Your task to perform on an android device: Search for Mexican restaurants on Maps Image 0: 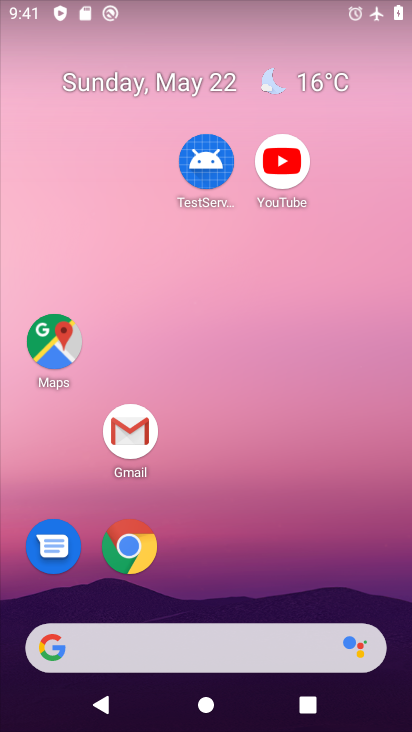
Step 0: drag from (269, 662) to (172, 68)
Your task to perform on an android device: Search for Mexican restaurants on Maps Image 1: 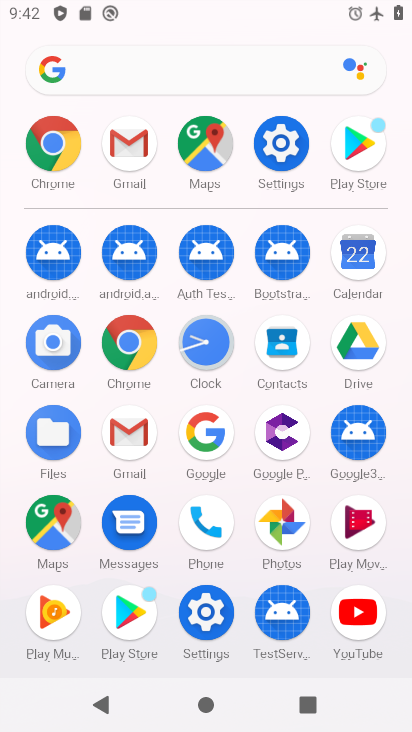
Step 1: click (49, 520)
Your task to perform on an android device: Search for Mexican restaurants on Maps Image 2: 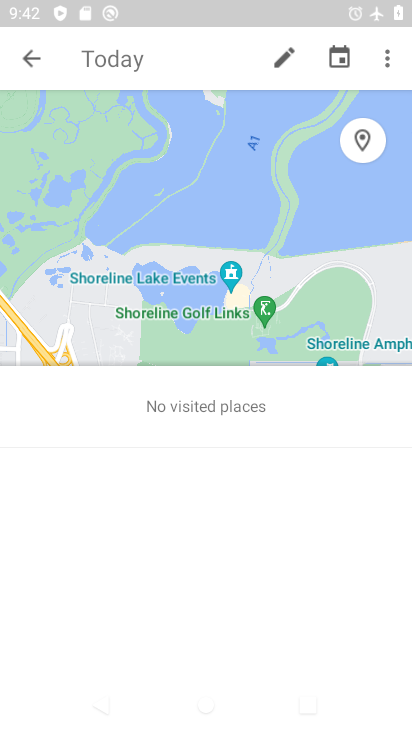
Step 2: click (92, 60)
Your task to perform on an android device: Search for Mexican restaurants on Maps Image 3: 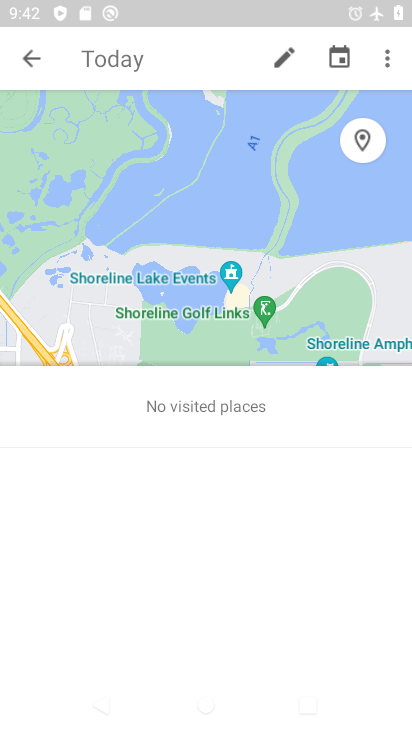
Step 3: click (93, 62)
Your task to perform on an android device: Search for Mexican restaurants on Maps Image 4: 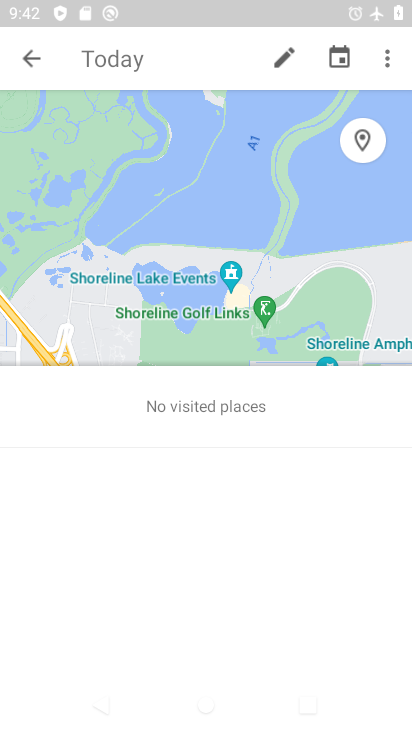
Step 4: click (93, 62)
Your task to perform on an android device: Search for Mexican restaurants on Maps Image 5: 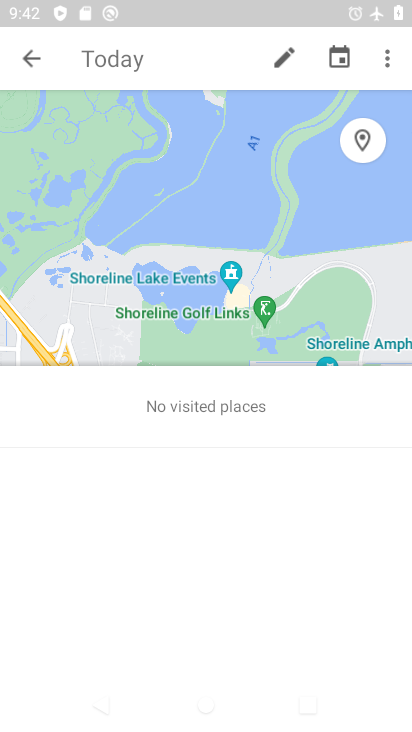
Step 5: click (93, 62)
Your task to perform on an android device: Search for Mexican restaurants on Maps Image 6: 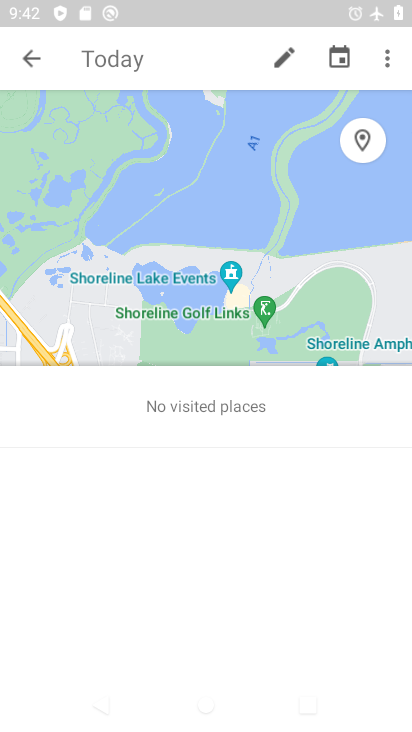
Step 6: click (93, 62)
Your task to perform on an android device: Search for Mexican restaurants on Maps Image 7: 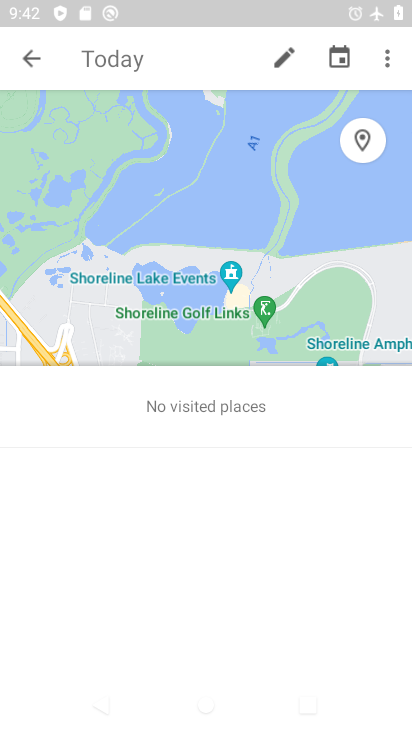
Step 7: click (83, 55)
Your task to perform on an android device: Search for Mexican restaurants on Maps Image 8: 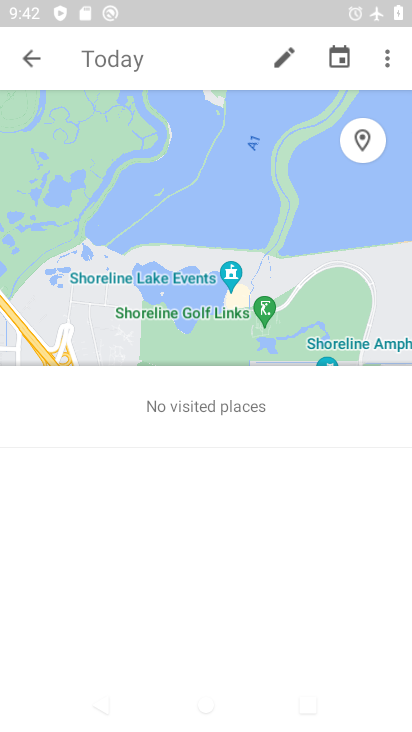
Step 8: click (83, 55)
Your task to perform on an android device: Search for Mexican restaurants on Maps Image 9: 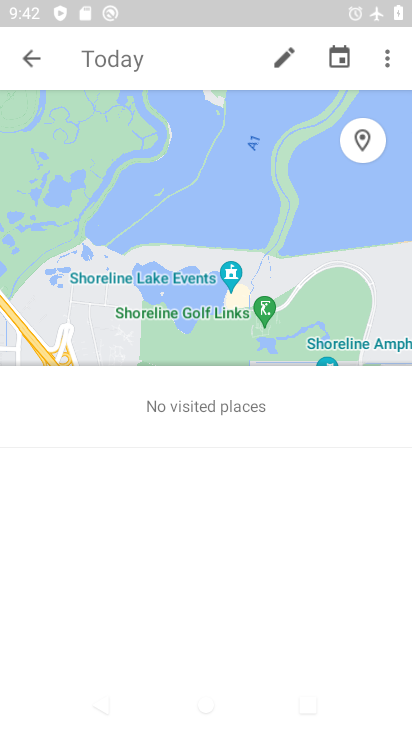
Step 9: click (84, 56)
Your task to perform on an android device: Search for Mexican restaurants on Maps Image 10: 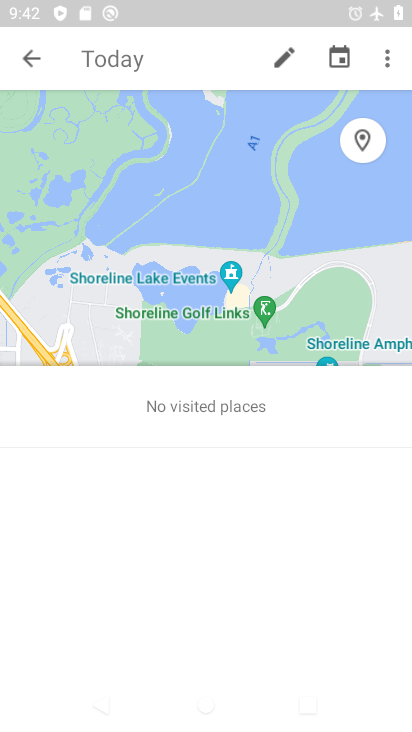
Step 10: click (103, 50)
Your task to perform on an android device: Search for Mexican restaurants on Maps Image 11: 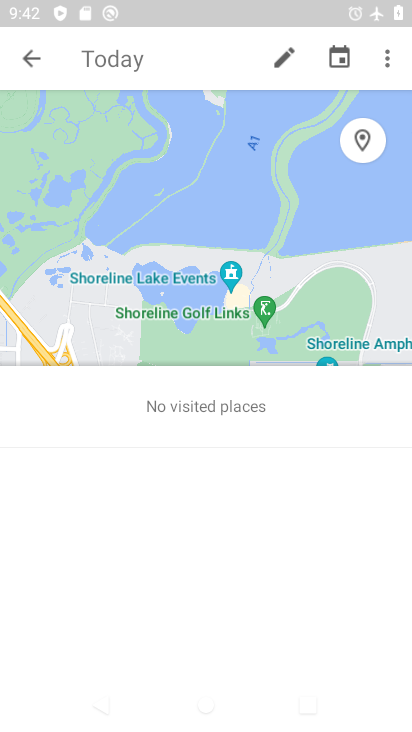
Step 11: click (30, 60)
Your task to perform on an android device: Search for Mexican restaurants on Maps Image 12: 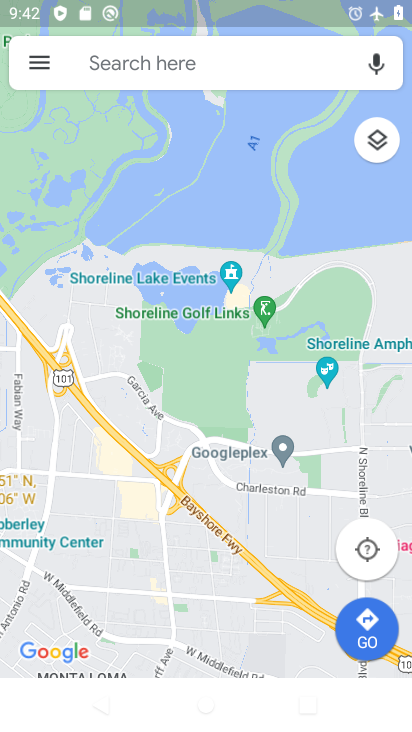
Step 12: click (91, 61)
Your task to perform on an android device: Search for Mexican restaurants on Maps Image 13: 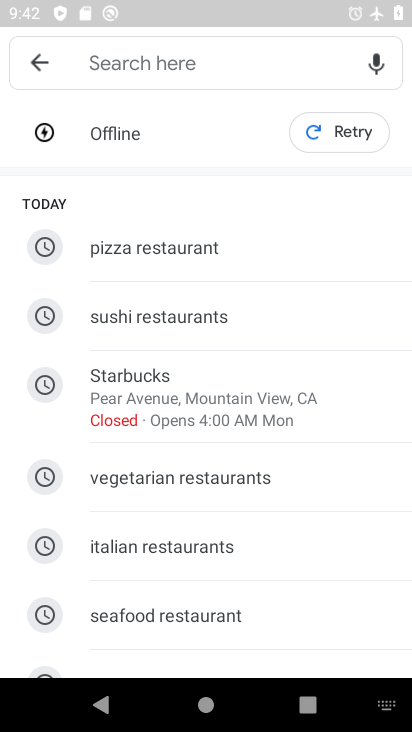
Step 13: type "mexican restaurants"
Your task to perform on an android device: Search for Mexican restaurants on Maps Image 14: 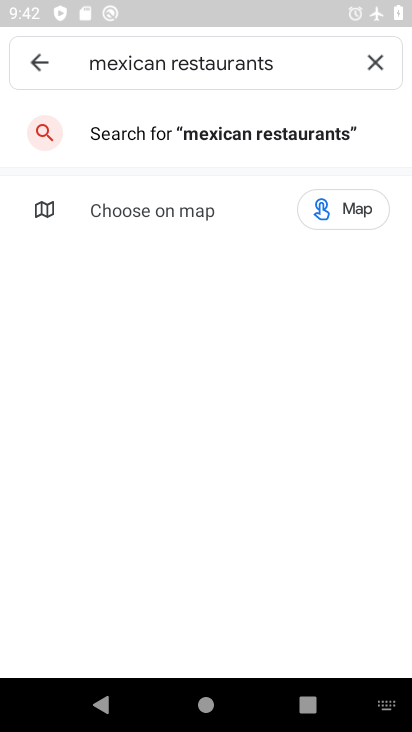
Step 14: click (225, 138)
Your task to perform on an android device: Search for Mexican restaurants on Maps Image 15: 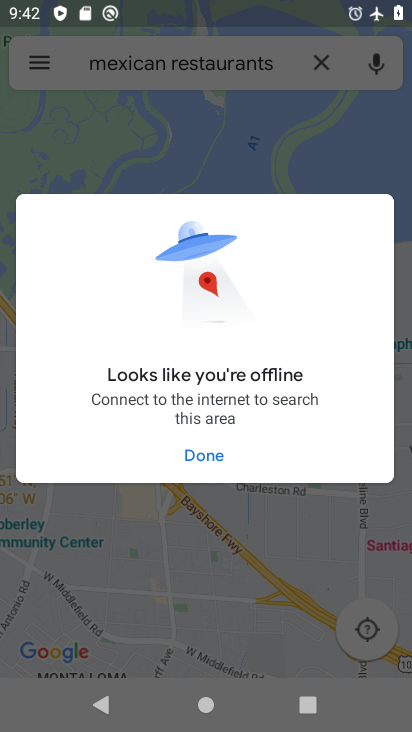
Step 15: task complete